Your task to perform on an android device: move an email to a new category in the gmail app Image 0: 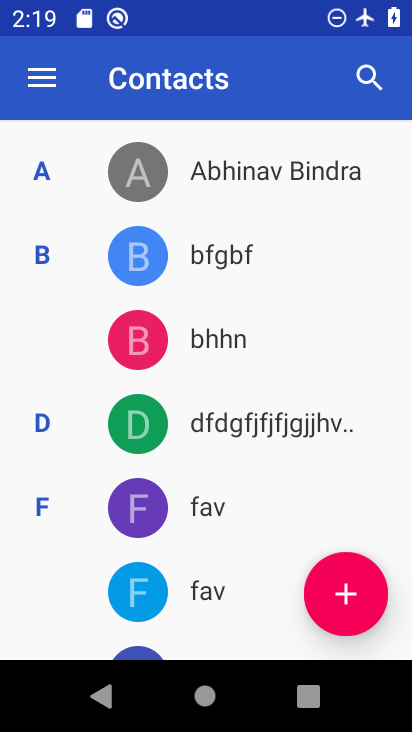
Step 0: press home button
Your task to perform on an android device: move an email to a new category in the gmail app Image 1: 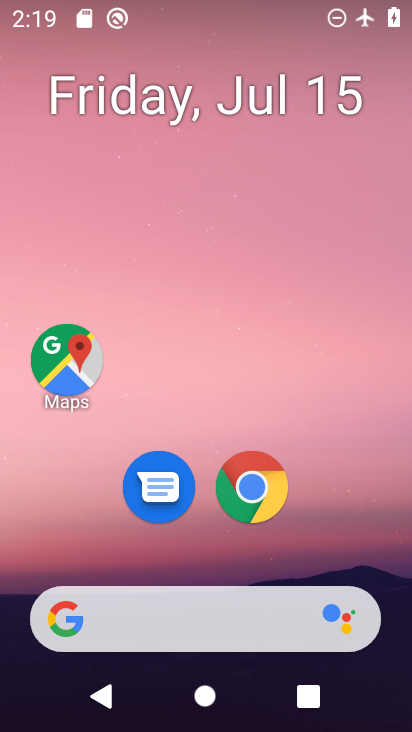
Step 1: drag from (135, 587) to (271, 198)
Your task to perform on an android device: move an email to a new category in the gmail app Image 2: 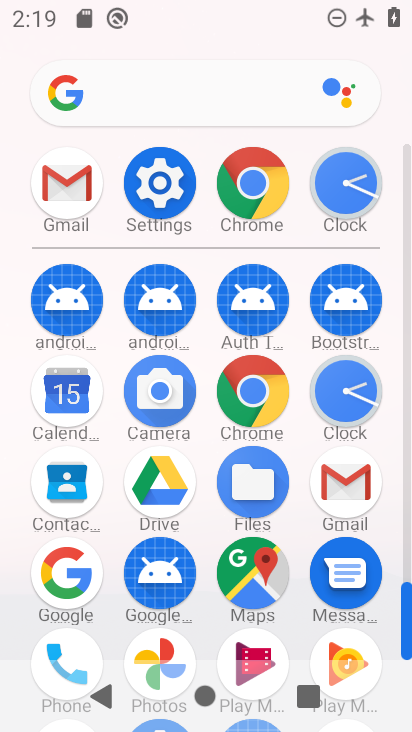
Step 2: click (359, 475)
Your task to perform on an android device: move an email to a new category in the gmail app Image 3: 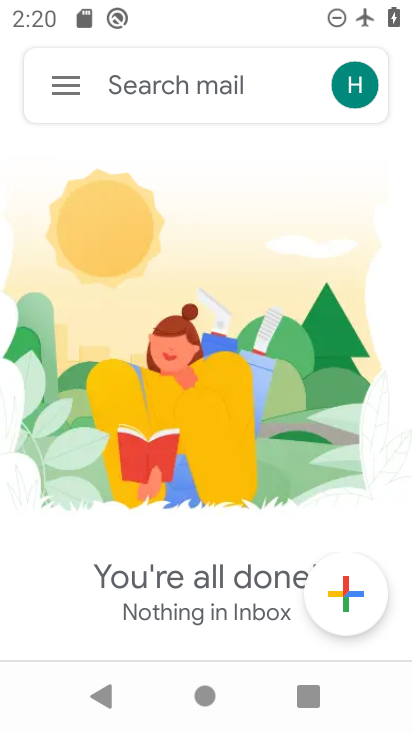
Step 3: click (61, 91)
Your task to perform on an android device: move an email to a new category in the gmail app Image 4: 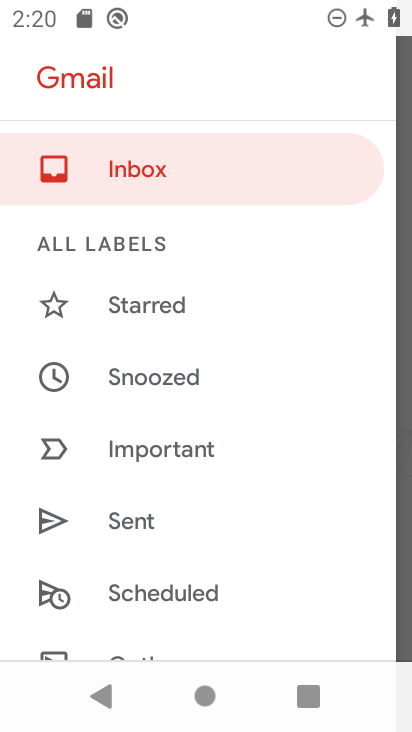
Step 4: drag from (106, 583) to (187, 180)
Your task to perform on an android device: move an email to a new category in the gmail app Image 5: 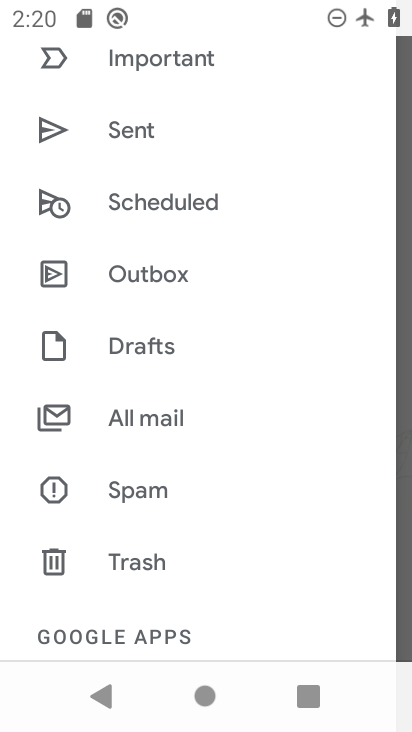
Step 5: click (142, 432)
Your task to perform on an android device: move an email to a new category in the gmail app Image 6: 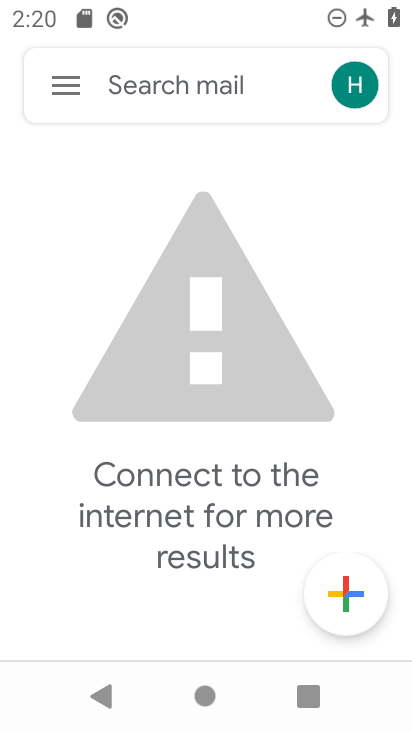
Step 6: click (54, 82)
Your task to perform on an android device: move an email to a new category in the gmail app Image 7: 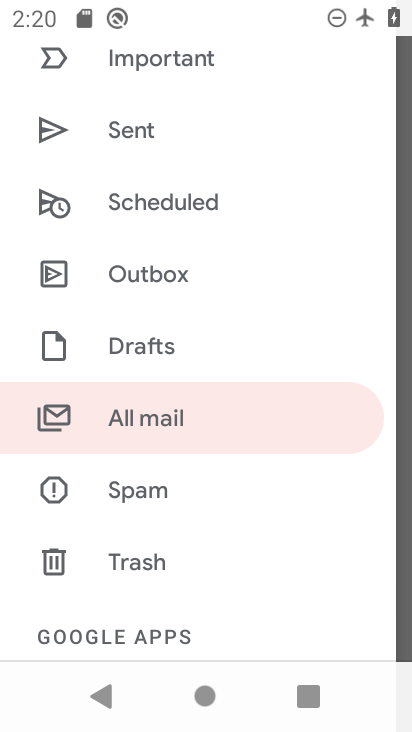
Step 7: click (154, 402)
Your task to perform on an android device: move an email to a new category in the gmail app Image 8: 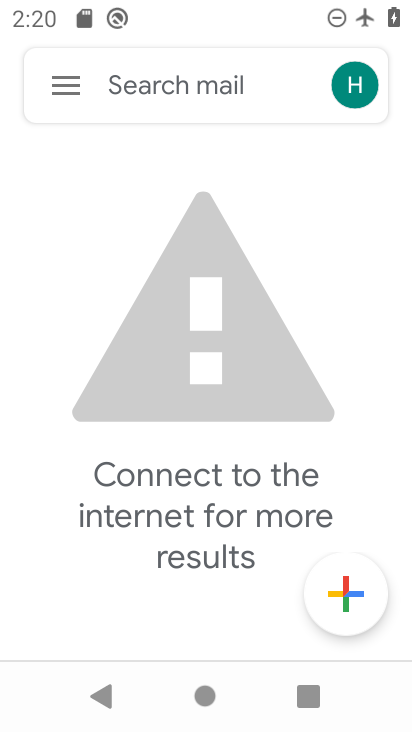
Step 8: task complete